Your task to perform on an android device: change the upload size in google photos Image 0: 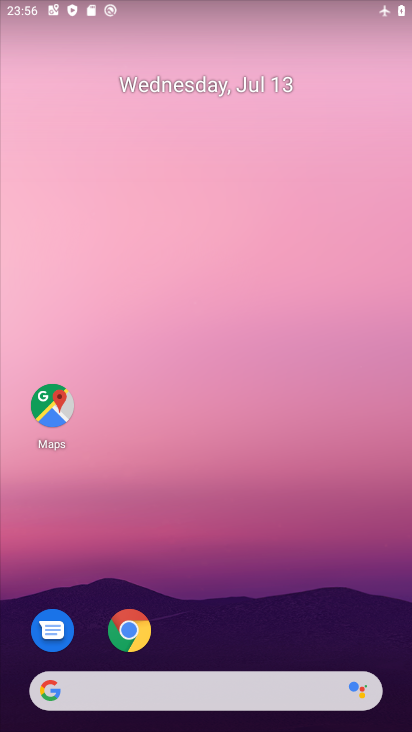
Step 0: drag from (361, 610) to (329, 216)
Your task to perform on an android device: change the upload size in google photos Image 1: 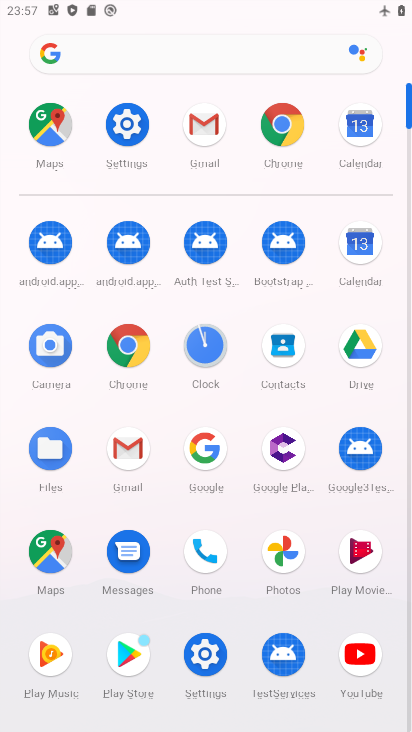
Step 1: click (278, 553)
Your task to perform on an android device: change the upload size in google photos Image 2: 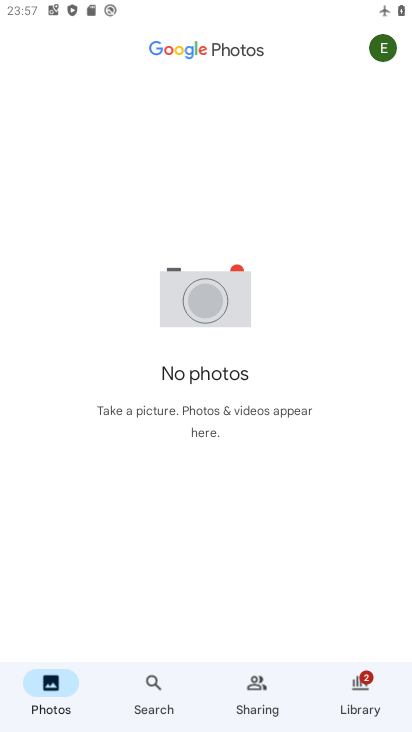
Step 2: click (380, 48)
Your task to perform on an android device: change the upload size in google photos Image 3: 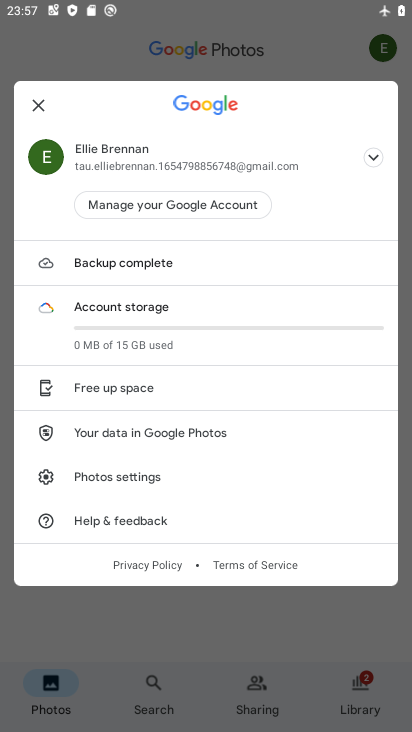
Step 3: click (182, 478)
Your task to perform on an android device: change the upload size in google photos Image 4: 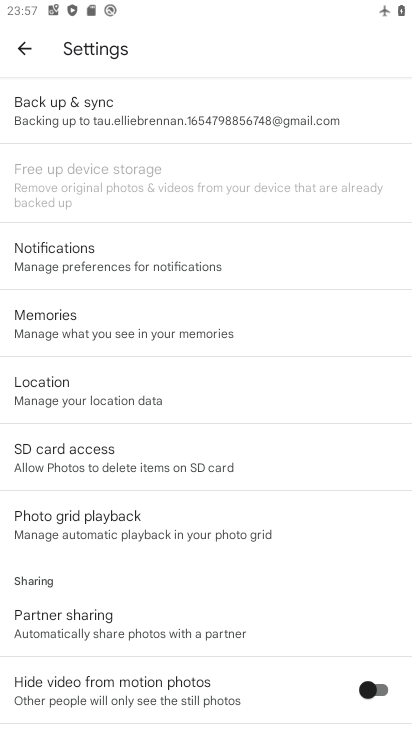
Step 4: drag from (316, 519) to (319, 441)
Your task to perform on an android device: change the upload size in google photos Image 5: 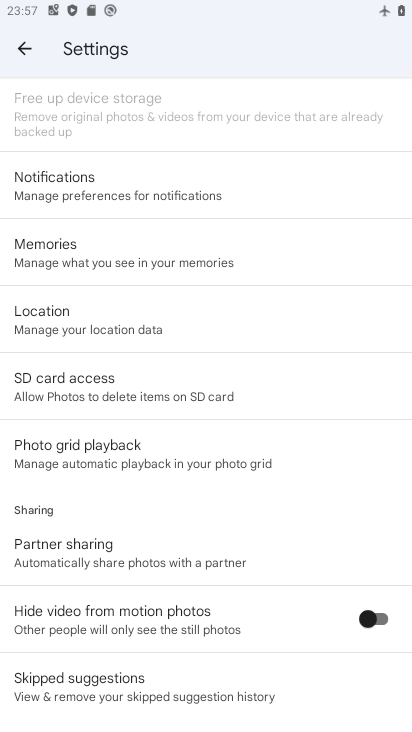
Step 5: drag from (321, 565) to (325, 503)
Your task to perform on an android device: change the upload size in google photos Image 6: 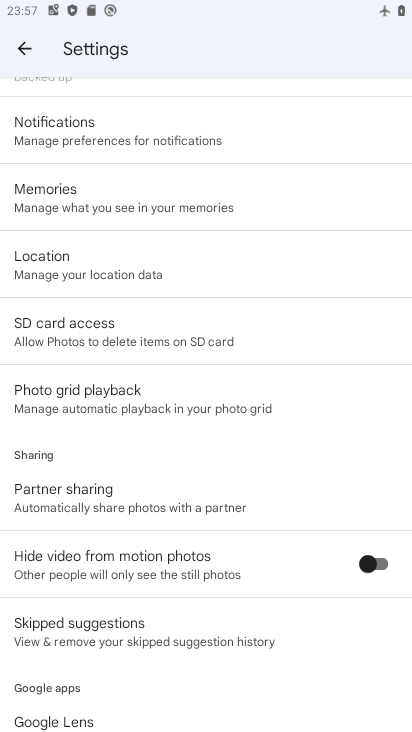
Step 6: drag from (320, 614) to (317, 493)
Your task to perform on an android device: change the upload size in google photos Image 7: 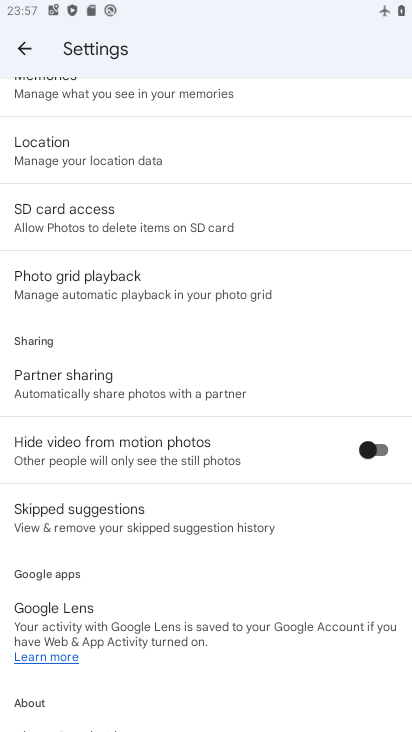
Step 7: drag from (316, 627) to (309, 485)
Your task to perform on an android device: change the upload size in google photos Image 8: 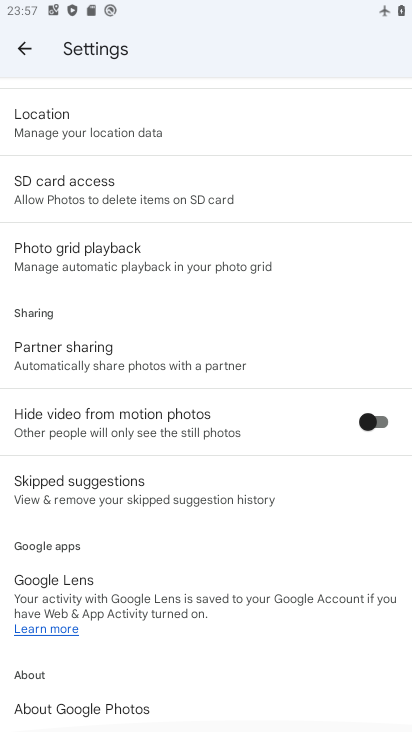
Step 8: drag from (314, 381) to (311, 445)
Your task to perform on an android device: change the upload size in google photos Image 9: 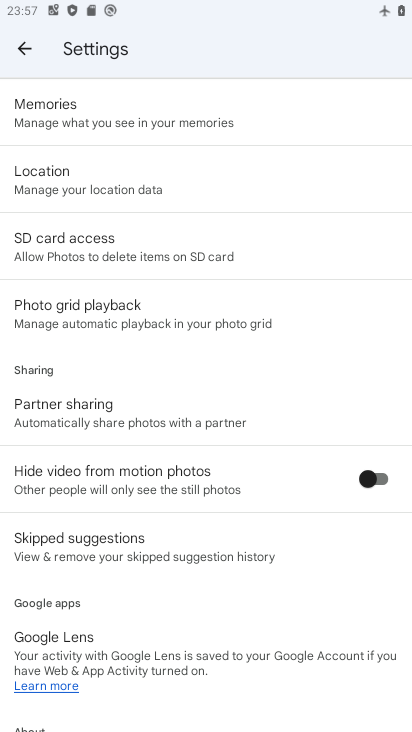
Step 9: drag from (315, 375) to (315, 434)
Your task to perform on an android device: change the upload size in google photos Image 10: 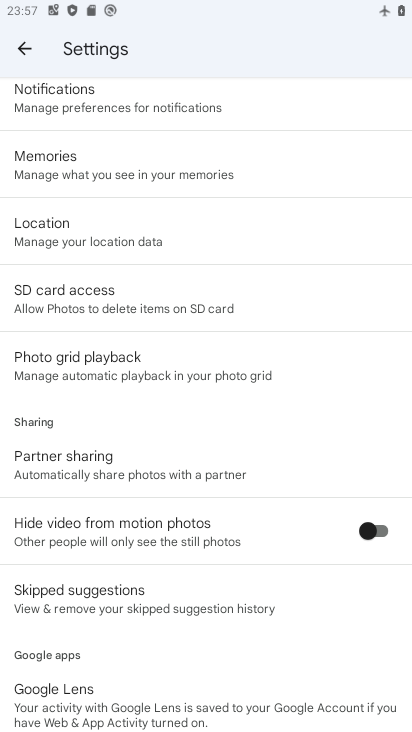
Step 10: drag from (330, 356) to (329, 453)
Your task to perform on an android device: change the upload size in google photos Image 11: 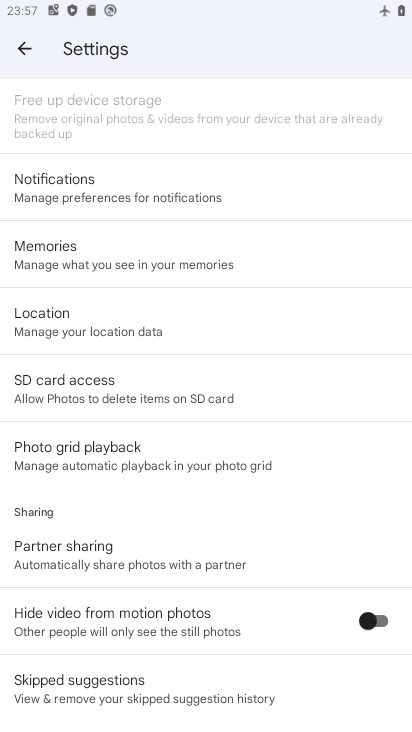
Step 11: drag from (329, 360) to (328, 447)
Your task to perform on an android device: change the upload size in google photos Image 12: 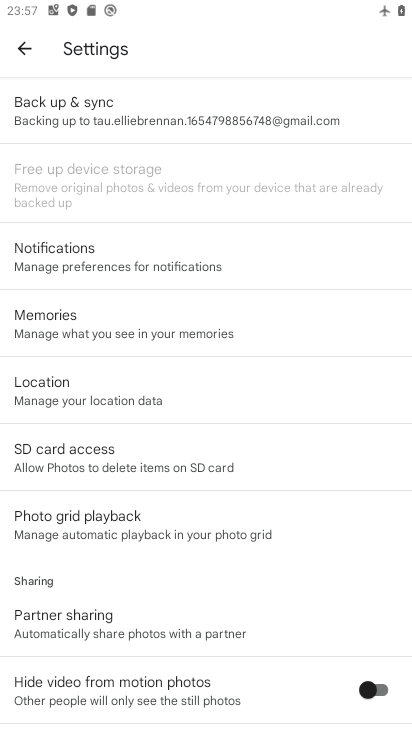
Step 12: drag from (328, 354) to (328, 450)
Your task to perform on an android device: change the upload size in google photos Image 13: 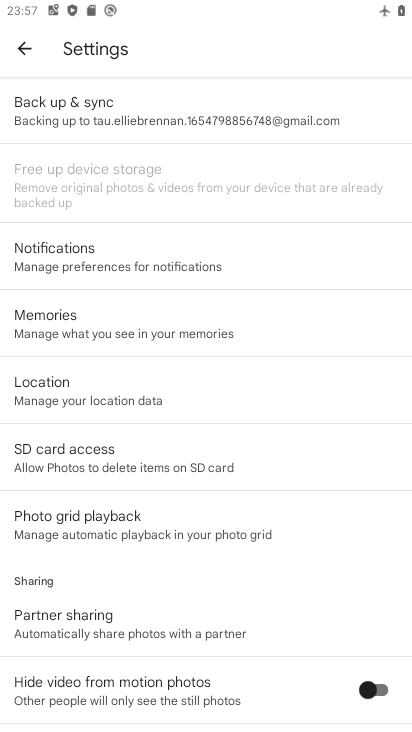
Step 13: click (202, 117)
Your task to perform on an android device: change the upload size in google photos Image 14: 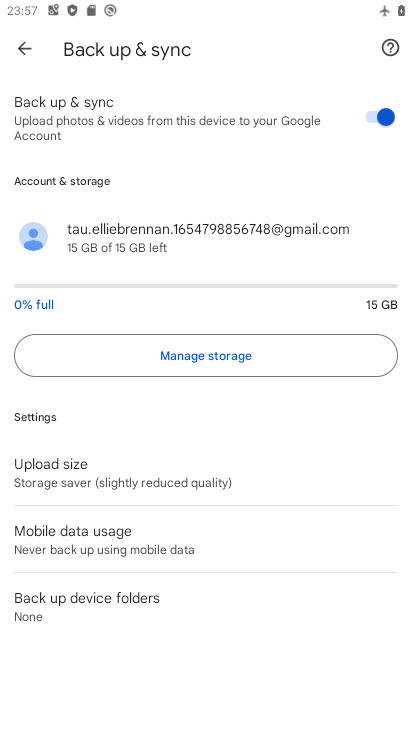
Step 14: click (128, 461)
Your task to perform on an android device: change the upload size in google photos Image 15: 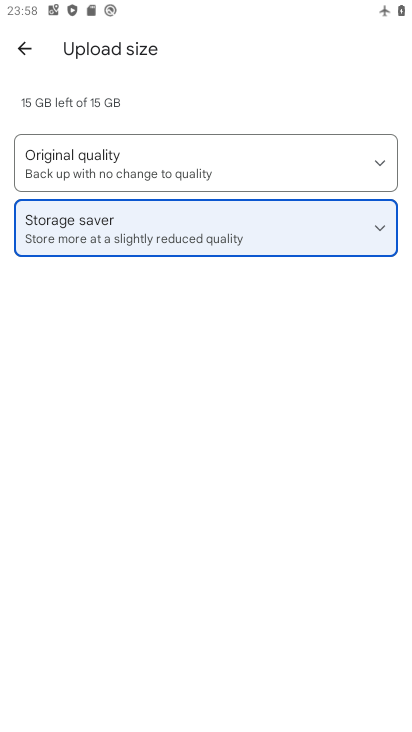
Step 15: click (160, 162)
Your task to perform on an android device: change the upload size in google photos Image 16: 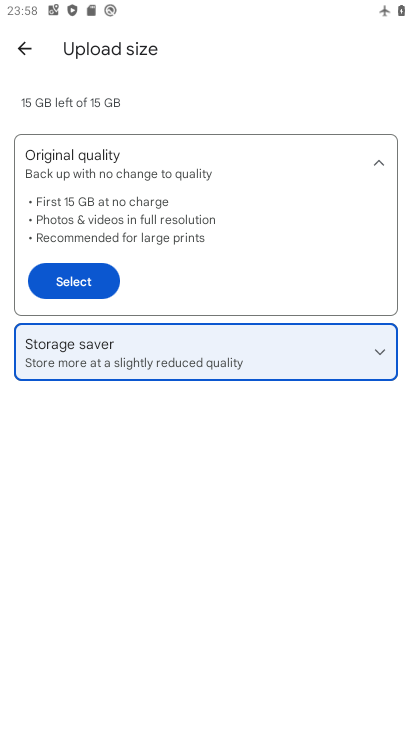
Step 16: click (66, 269)
Your task to perform on an android device: change the upload size in google photos Image 17: 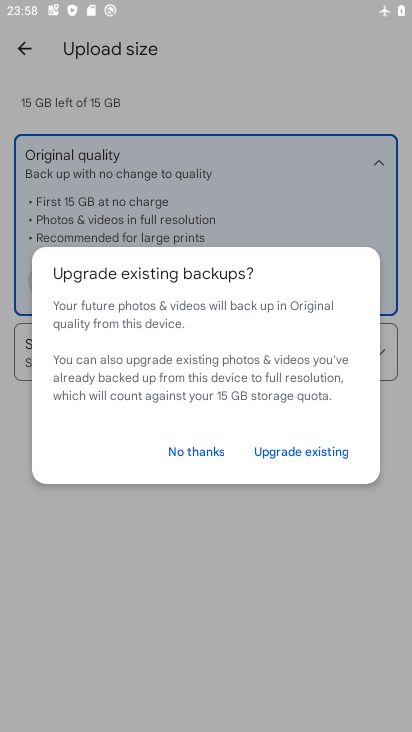
Step 17: click (284, 454)
Your task to perform on an android device: change the upload size in google photos Image 18: 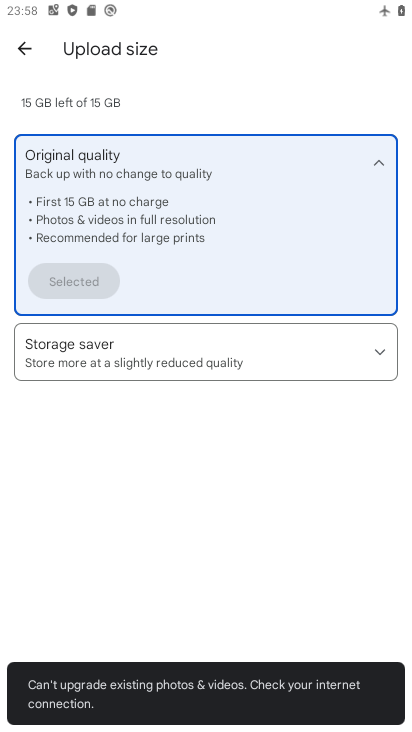
Step 18: task complete